Your task to perform on an android device: Open Youtube and go to the subscriptions tab Image 0: 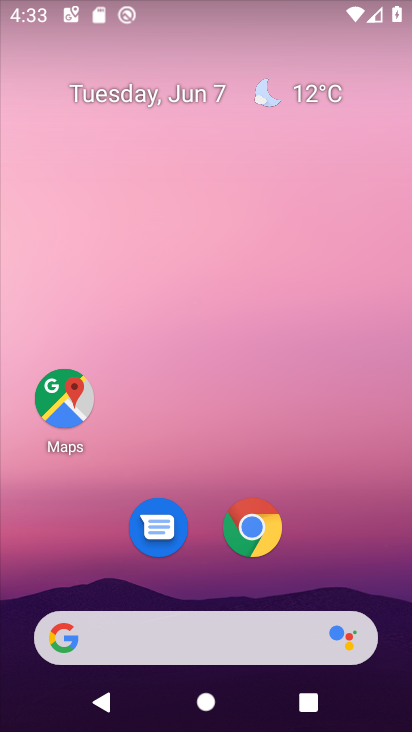
Step 0: click (318, 425)
Your task to perform on an android device: Open Youtube and go to the subscriptions tab Image 1: 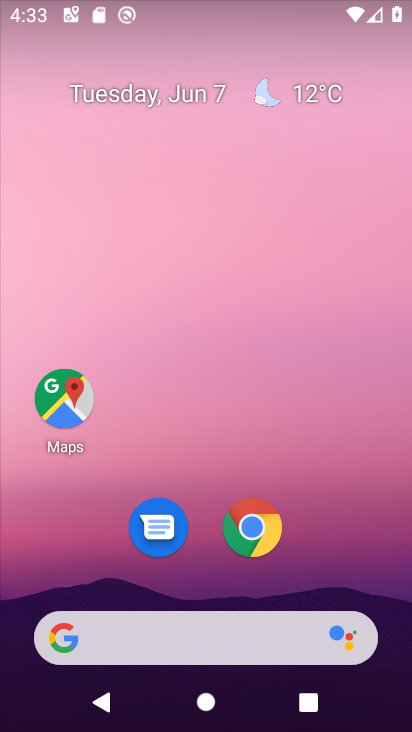
Step 1: drag from (207, 511) to (363, 7)
Your task to perform on an android device: Open Youtube and go to the subscriptions tab Image 2: 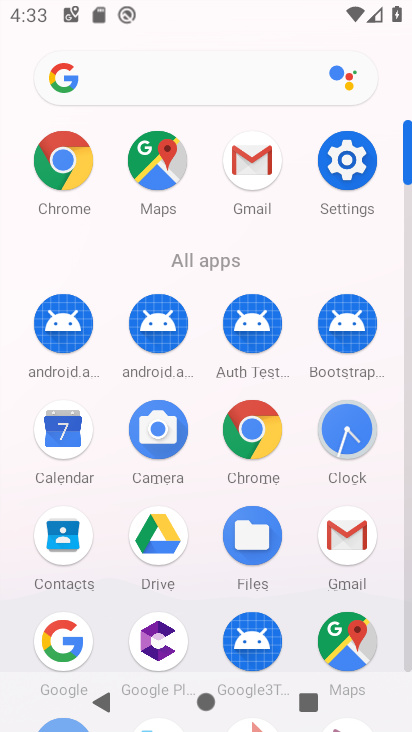
Step 2: drag from (206, 580) to (258, 6)
Your task to perform on an android device: Open Youtube and go to the subscriptions tab Image 3: 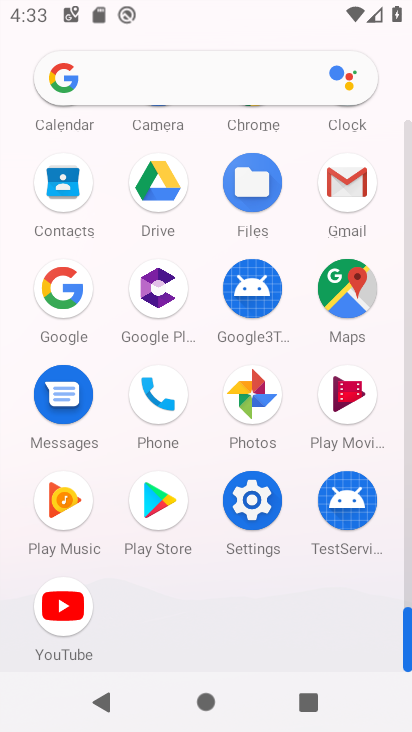
Step 3: click (69, 622)
Your task to perform on an android device: Open Youtube and go to the subscriptions tab Image 4: 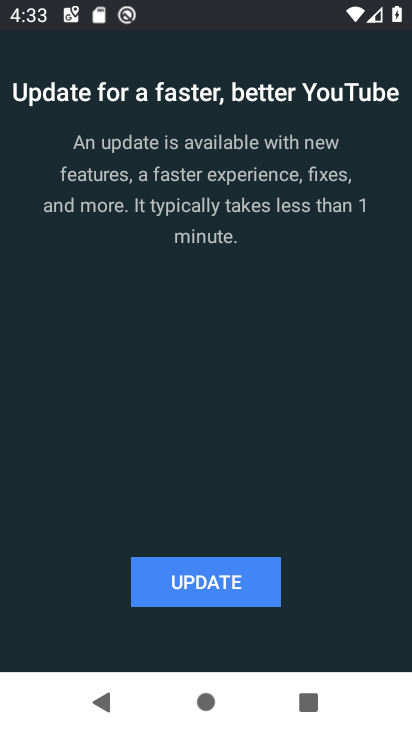
Step 4: click (215, 580)
Your task to perform on an android device: Open Youtube and go to the subscriptions tab Image 5: 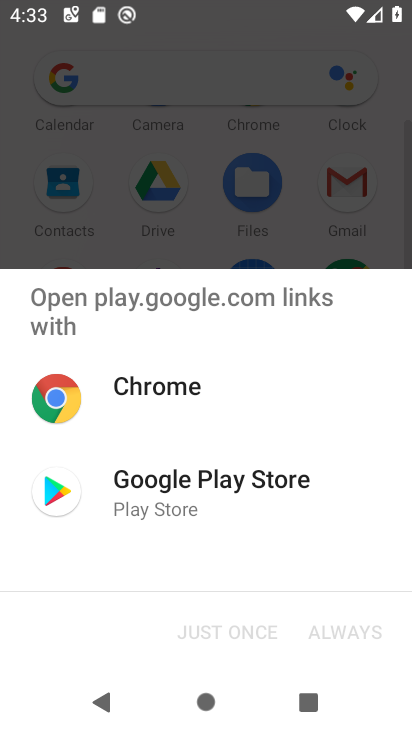
Step 5: click (175, 487)
Your task to perform on an android device: Open Youtube and go to the subscriptions tab Image 6: 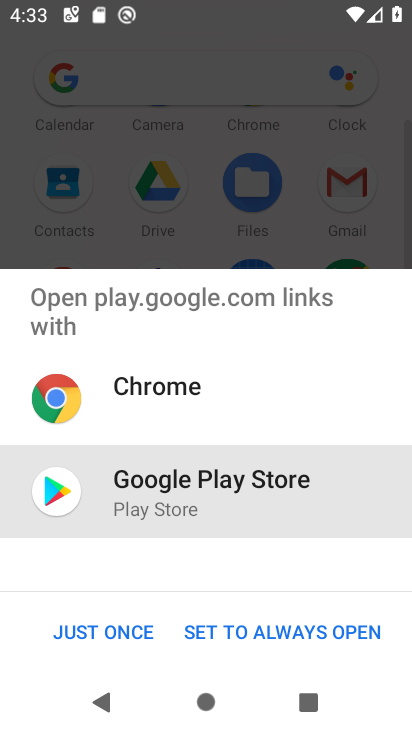
Step 6: click (128, 638)
Your task to perform on an android device: Open Youtube and go to the subscriptions tab Image 7: 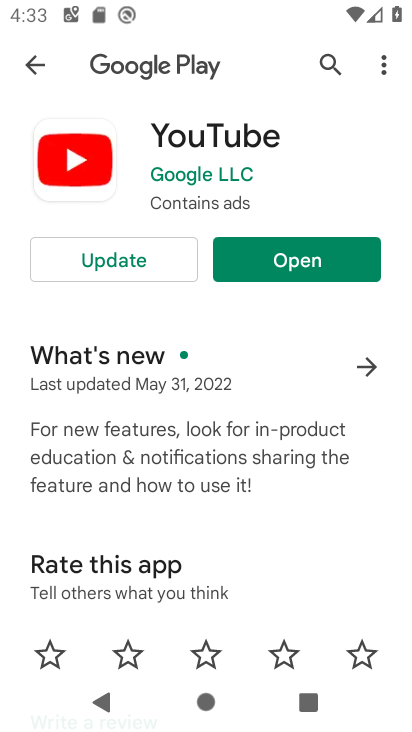
Step 7: click (84, 265)
Your task to perform on an android device: Open Youtube and go to the subscriptions tab Image 8: 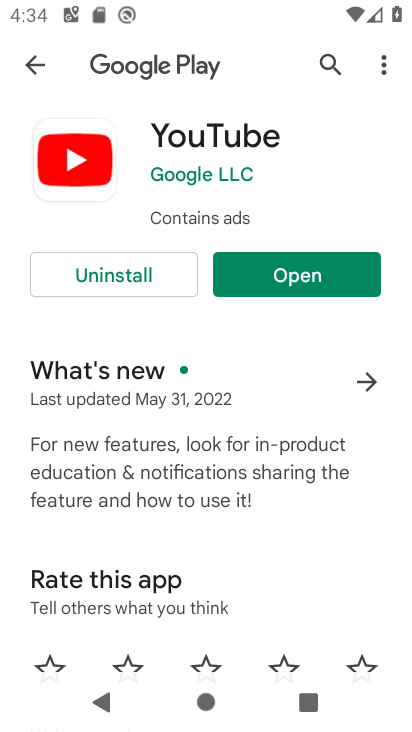
Step 8: click (347, 272)
Your task to perform on an android device: Open Youtube and go to the subscriptions tab Image 9: 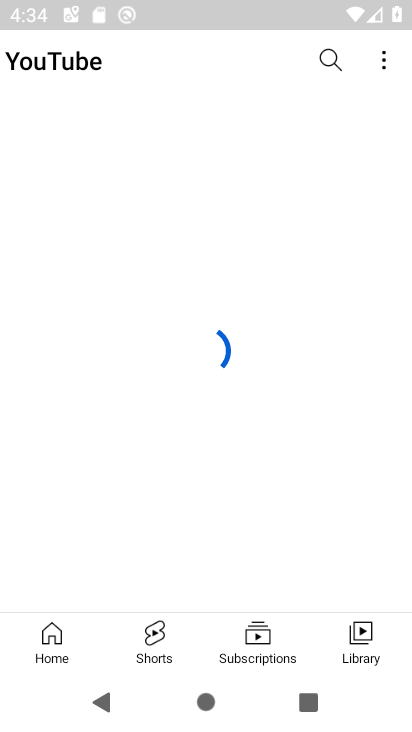
Step 9: click (248, 632)
Your task to perform on an android device: Open Youtube and go to the subscriptions tab Image 10: 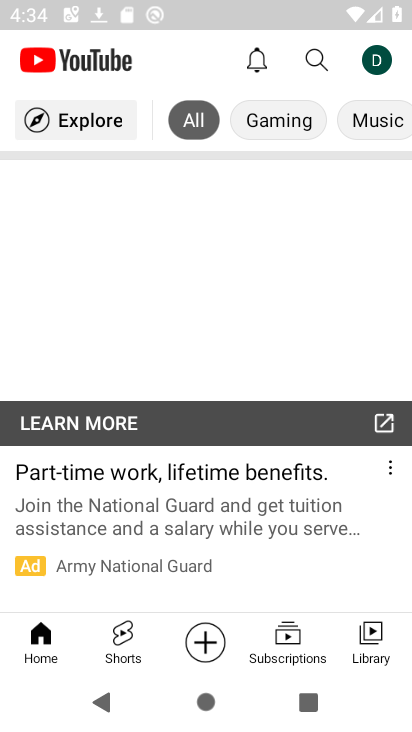
Step 10: click (275, 649)
Your task to perform on an android device: Open Youtube and go to the subscriptions tab Image 11: 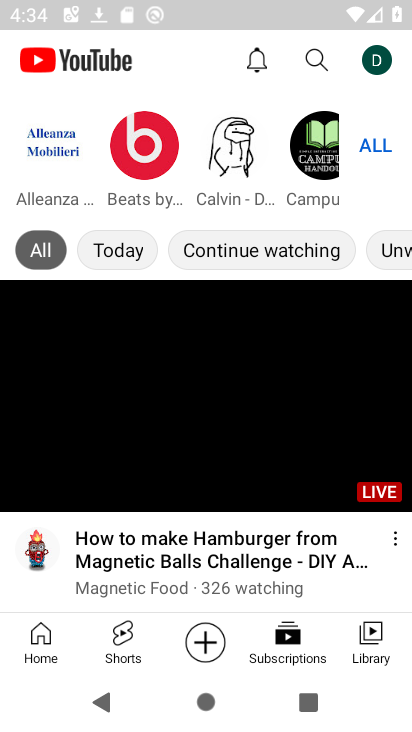
Step 11: task complete